Your task to perform on an android device: toggle wifi Image 0: 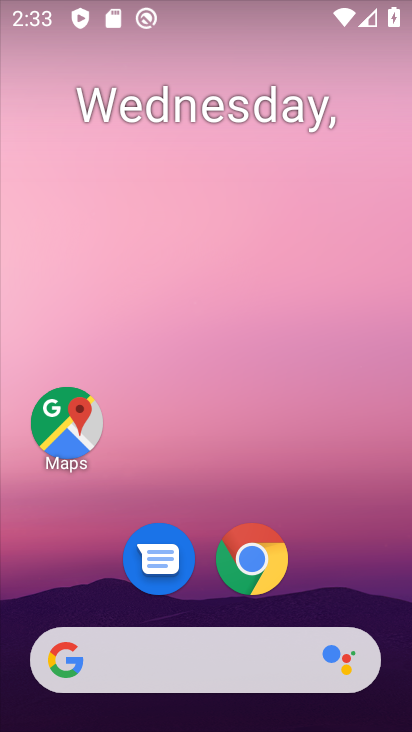
Step 0: drag from (359, 543) to (346, 117)
Your task to perform on an android device: toggle wifi Image 1: 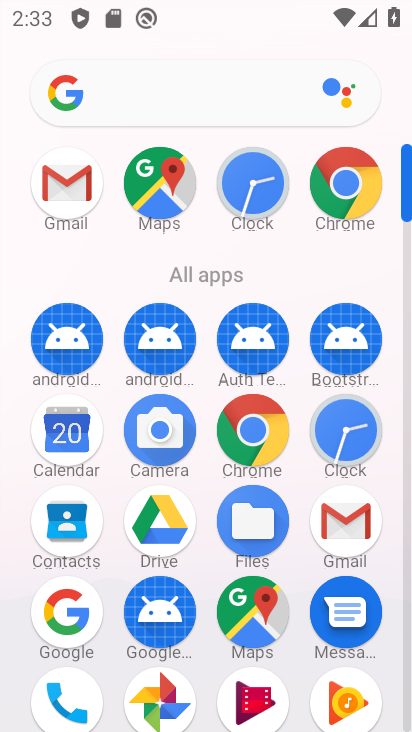
Step 1: drag from (289, 633) to (276, 330)
Your task to perform on an android device: toggle wifi Image 2: 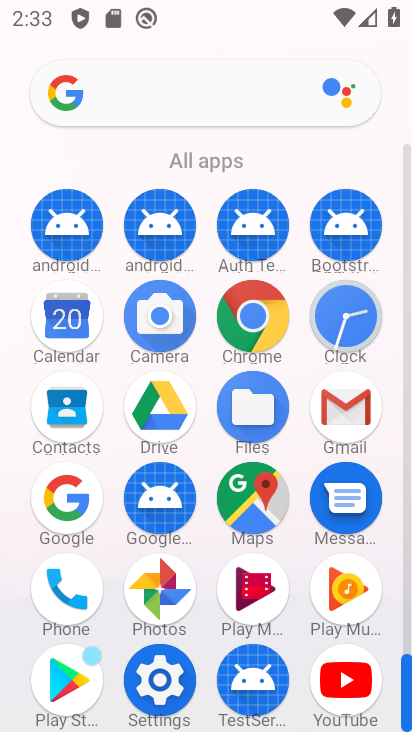
Step 2: click (162, 683)
Your task to perform on an android device: toggle wifi Image 3: 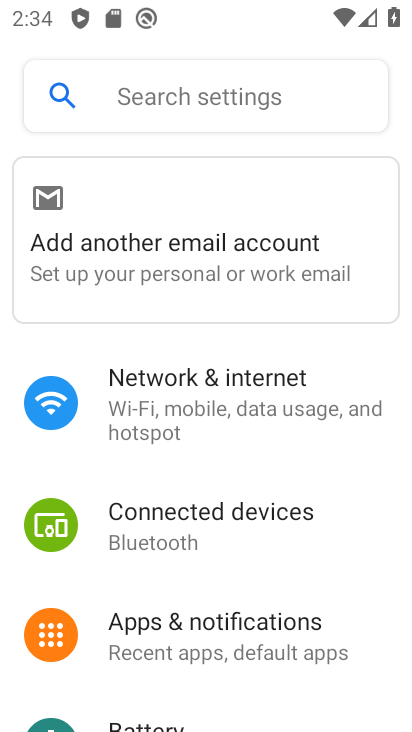
Step 3: click (241, 410)
Your task to perform on an android device: toggle wifi Image 4: 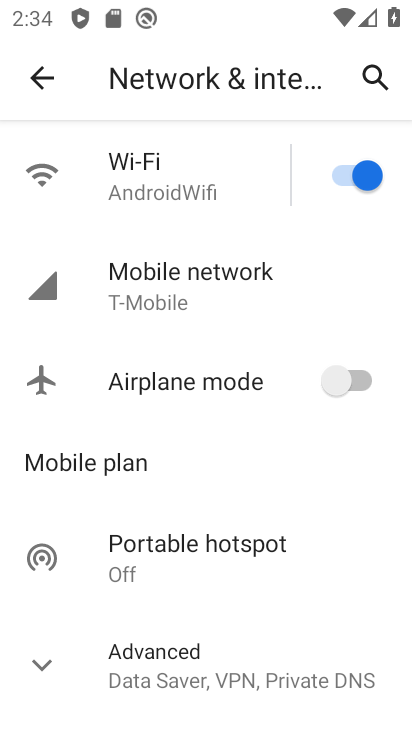
Step 4: click (347, 173)
Your task to perform on an android device: toggle wifi Image 5: 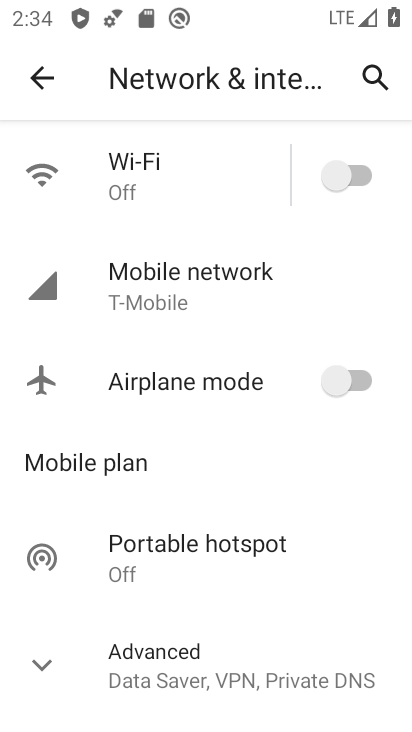
Step 5: task complete